Your task to perform on an android device: open app "Venmo" (install if not already installed) Image 0: 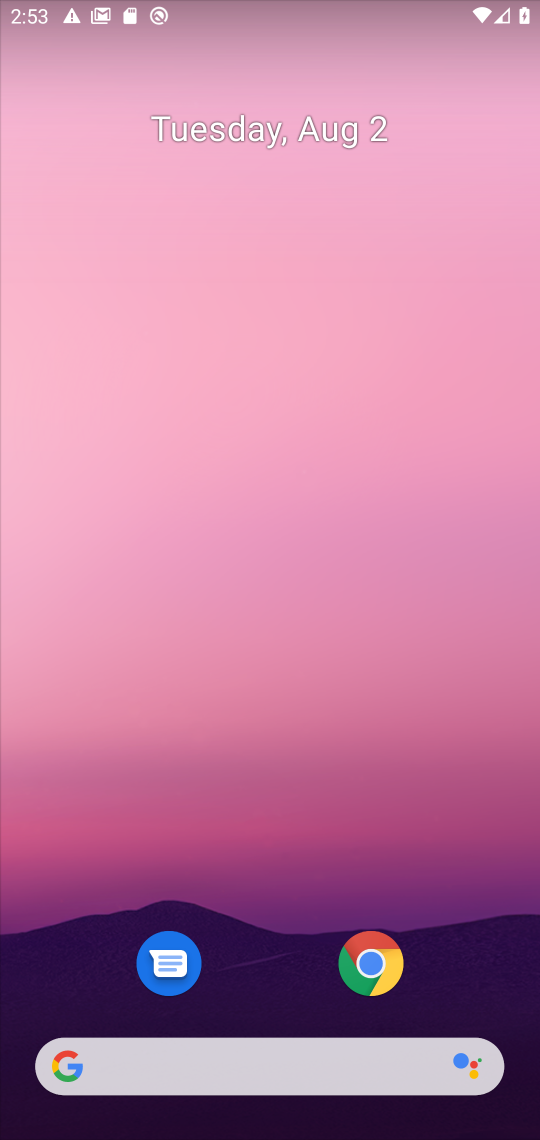
Step 0: drag from (258, 876) to (239, 219)
Your task to perform on an android device: open app "Venmo" (install if not already installed) Image 1: 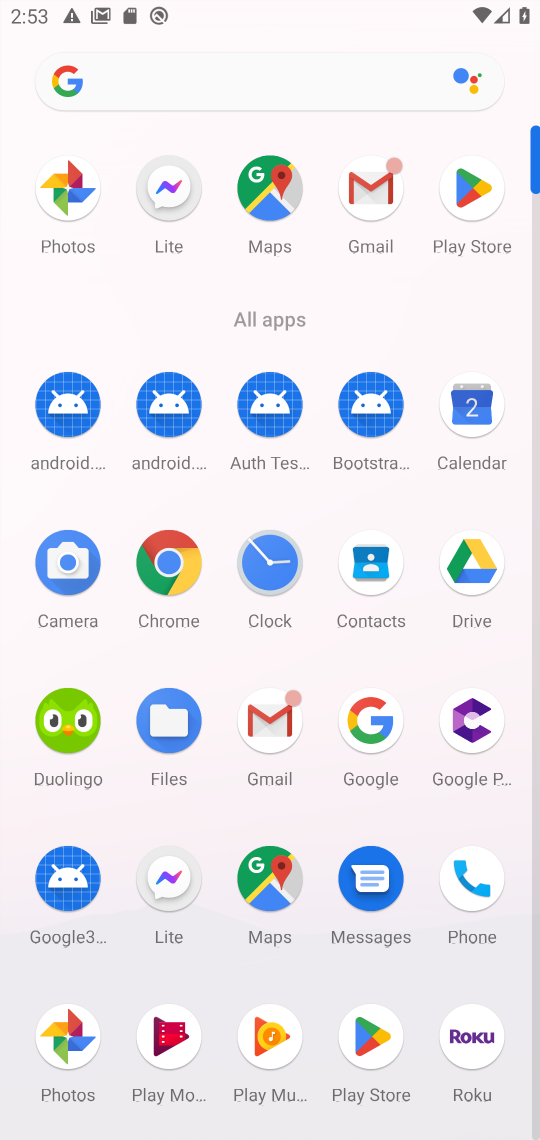
Step 1: click (475, 181)
Your task to perform on an android device: open app "Venmo" (install if not already installed) Image 2: 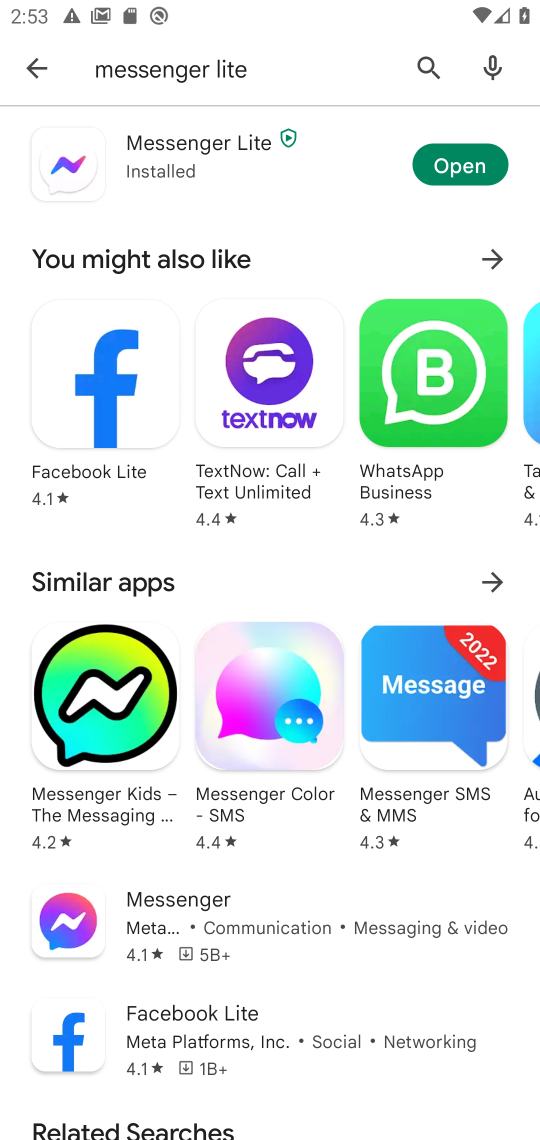
Step 2: click (425, 72)
Your task to perform on an android device: open app "Venmo" (install if not already installed) Image 3: 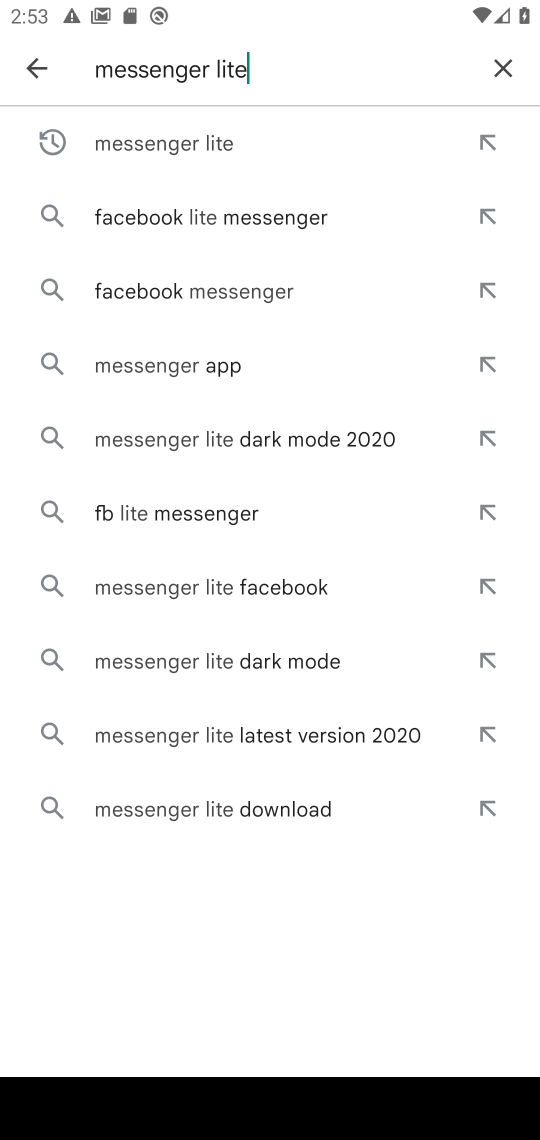
Step 3: click (497, 71)
Your task to perform on an android device: open app "Venmo" (install if not already installed) Image 4: 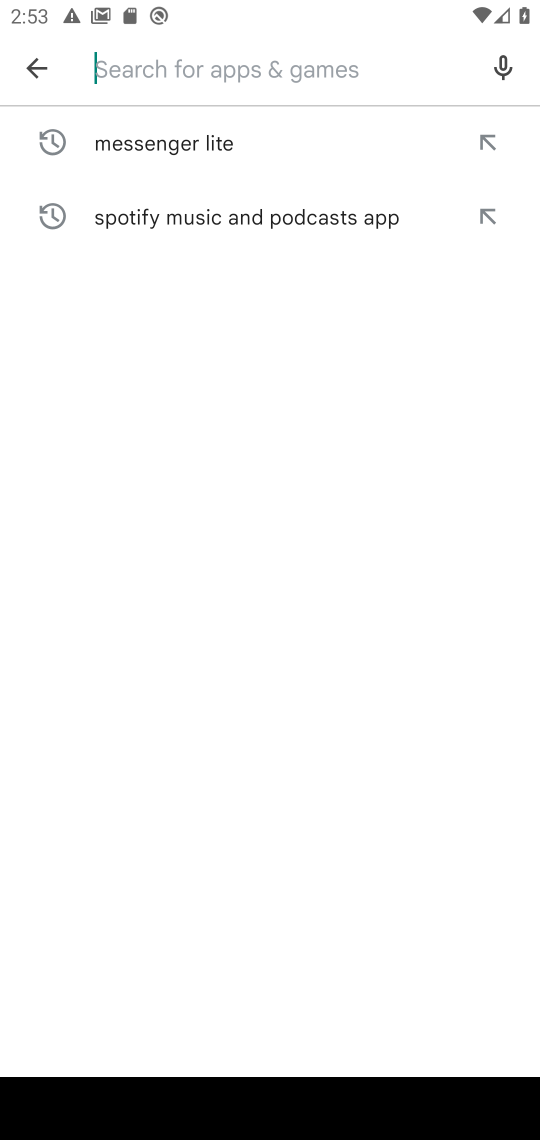
Step 4: type "Venmo"
Your task to perform on an android device: open app "Venmo" (install if not already installed) Image 5: 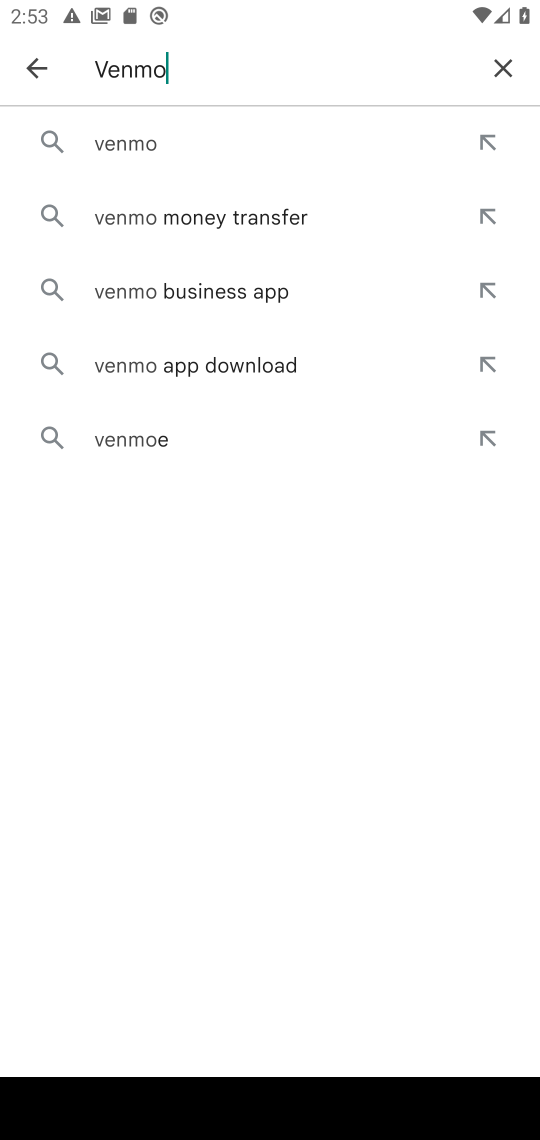
Step 5: click (129, 143)
Your task to perform on an android device: open app "Venmo" (install if not already installed) Image 6: 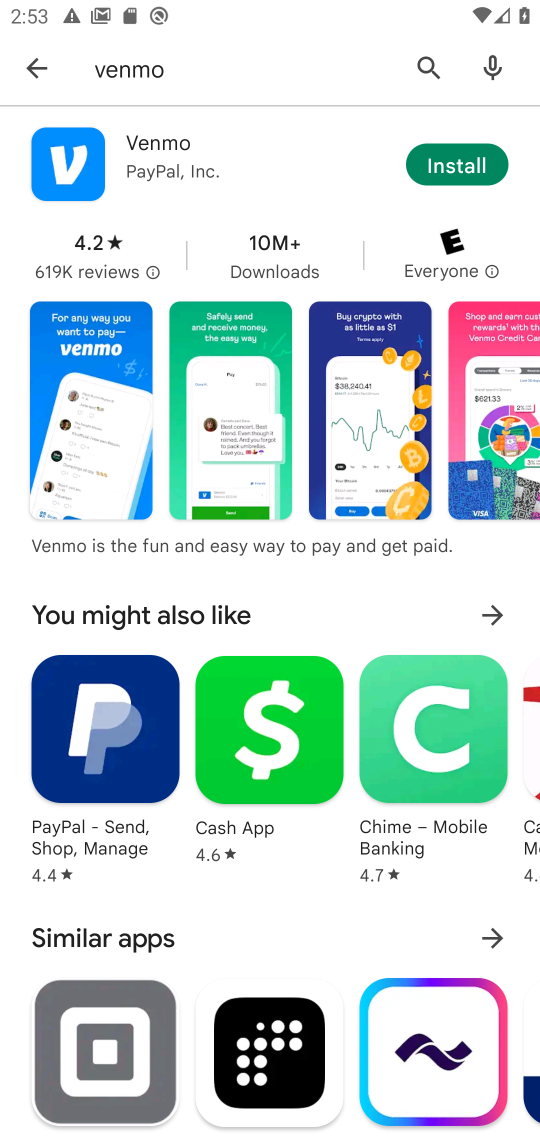
Step 6: click (451, 168)
Your task to perform on an android device: open app "Venmo" (install if not already installed) Image 7: 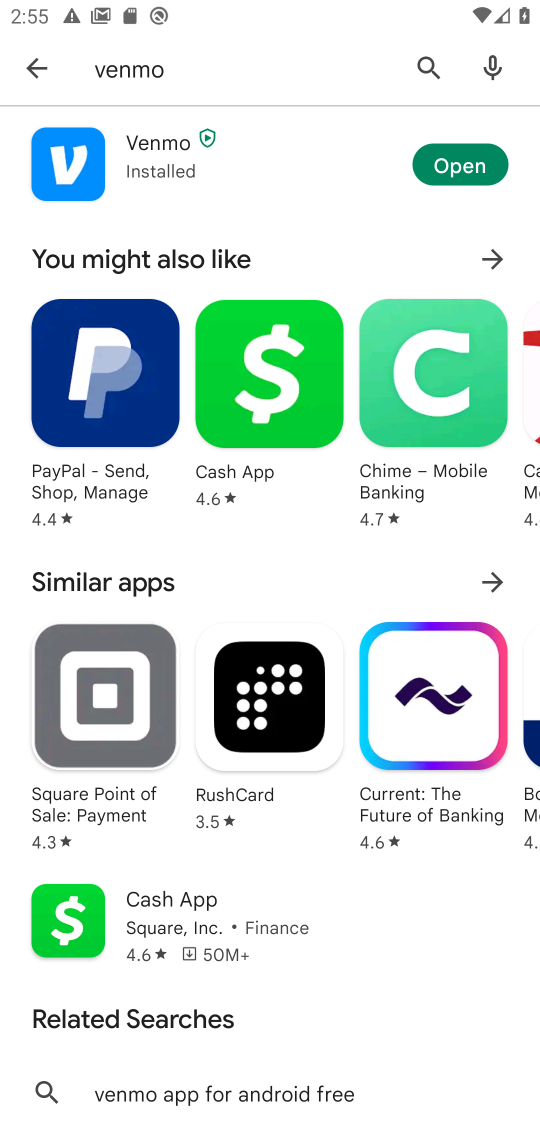
Step 7: click (444, 164)
Your task to perform on an android device: open app "Venmo" (install if not already installed) Image 8: 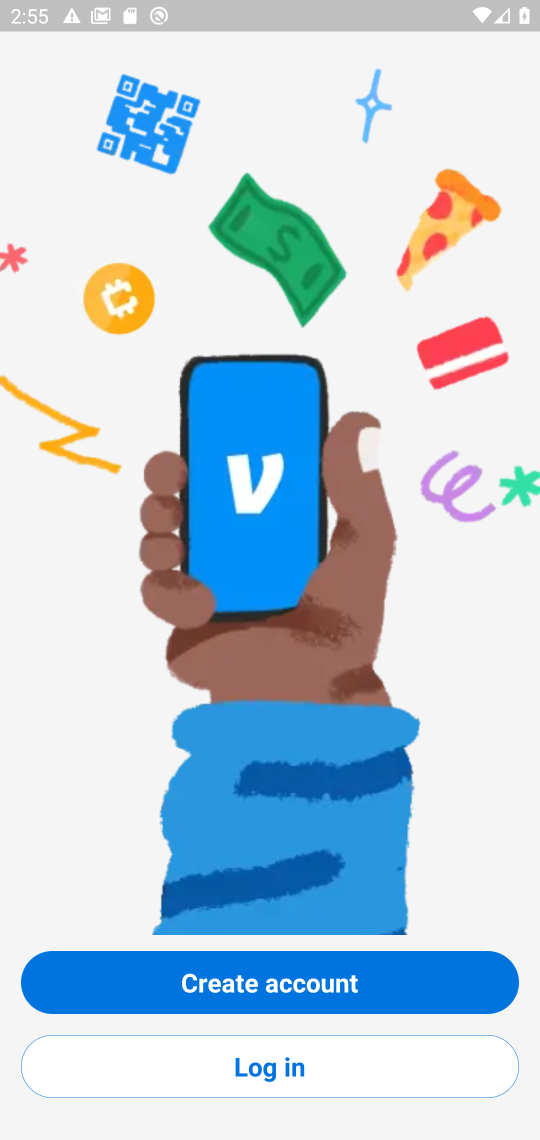
Step 8: task complete